Your task to perform on an android device: check android version Image 0: 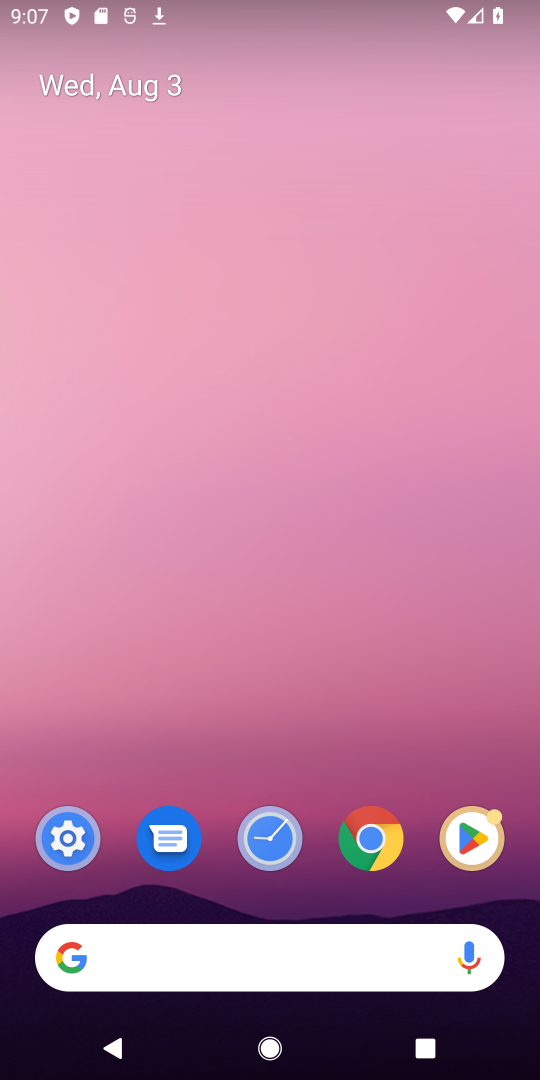
Step 0: drag from (463, 769) to (45, 17)
Your task to perform on an android device: check android version Image 1: 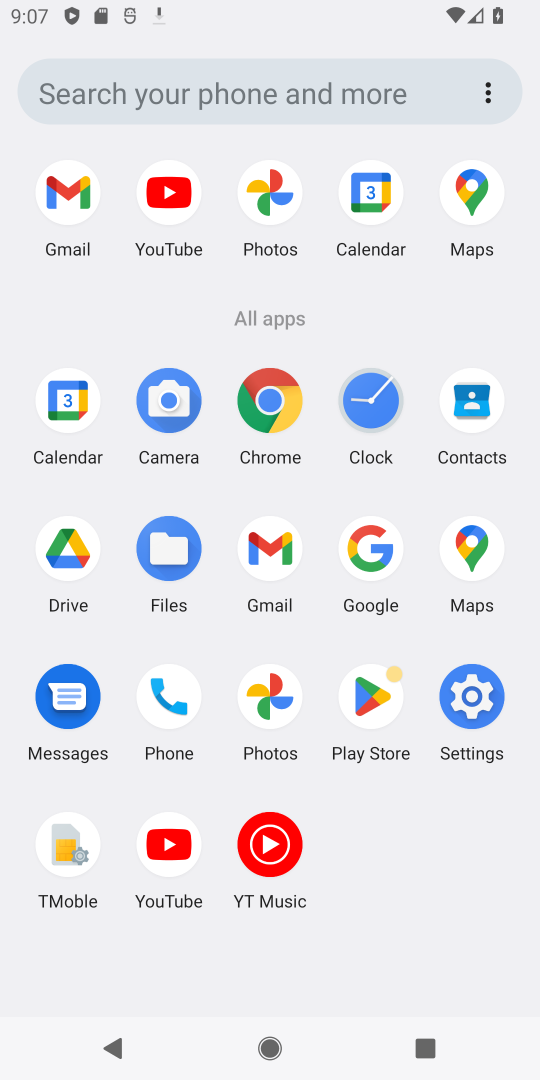
Step 1: click (465, 673)
Your task to perform on an android device: check android version Image 2: 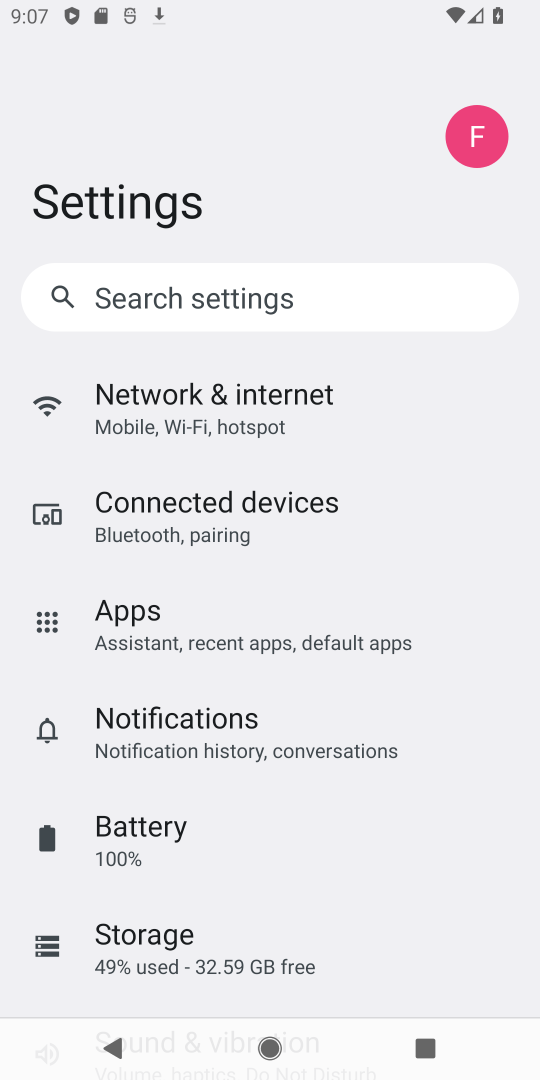
Step 2: drag from (481, 922) to (380, 205)
Your task to perform on an android device: check android version Image 3: 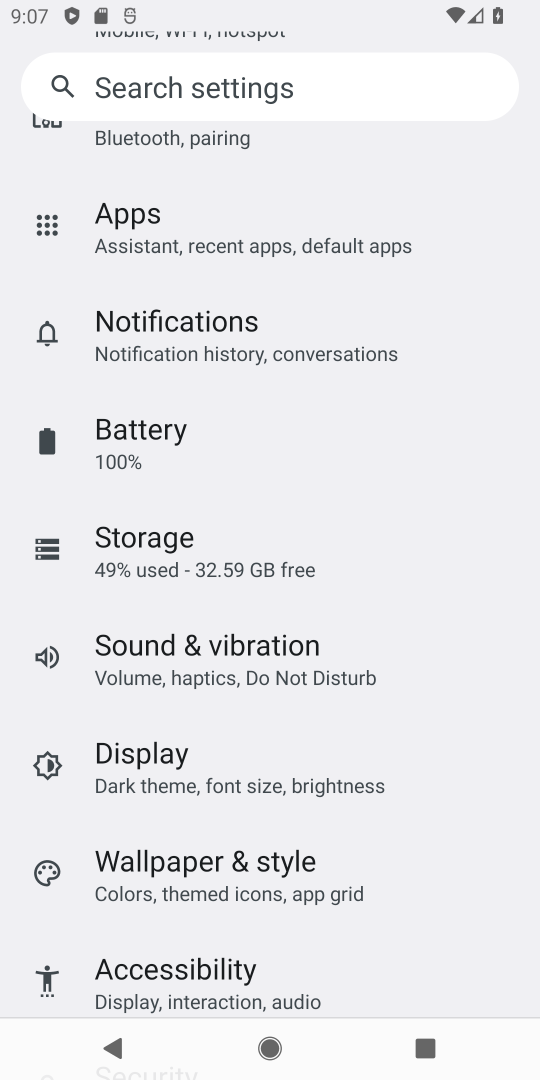
Step 3: drag from (279, 952) to (301, 187)
Your task to perform on an android device: check android version Image 4: 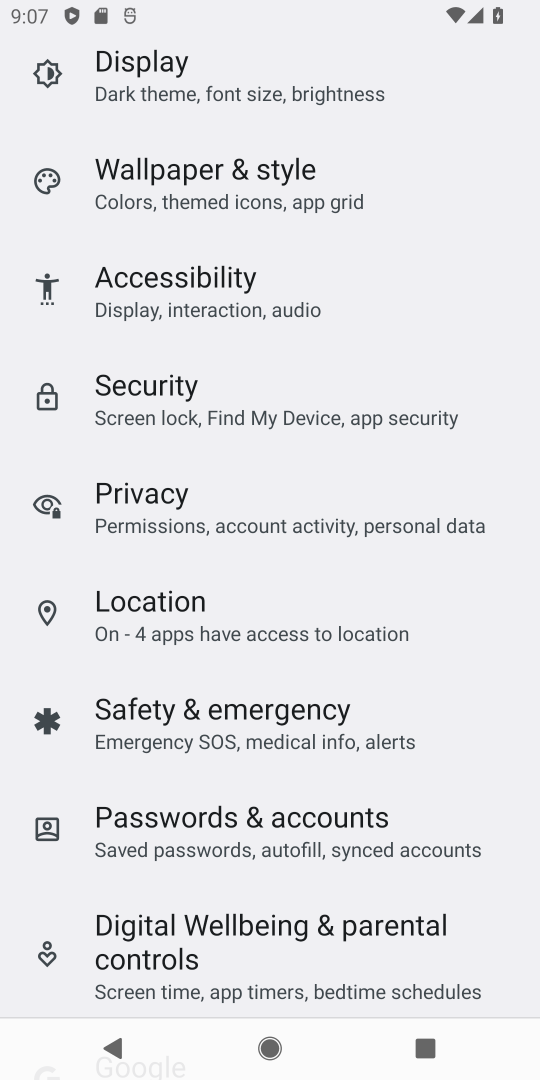
Step 4: drag from (380, 981) to (284, 47)
Your task to perform on an android device: check android version Image 5: 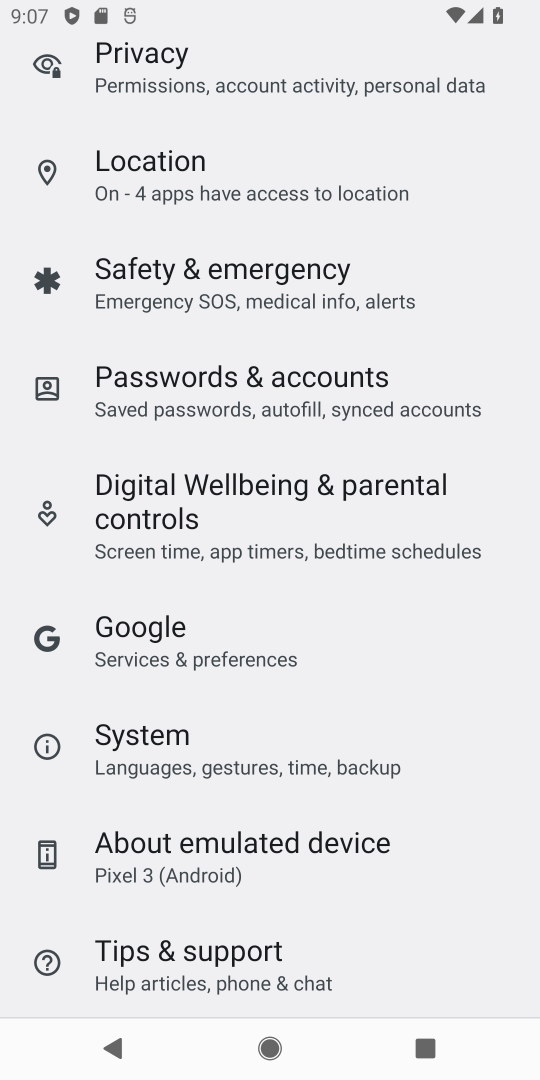
Step 5: click (333, 851)
Your task to perform on an android device: check android version Image 6: 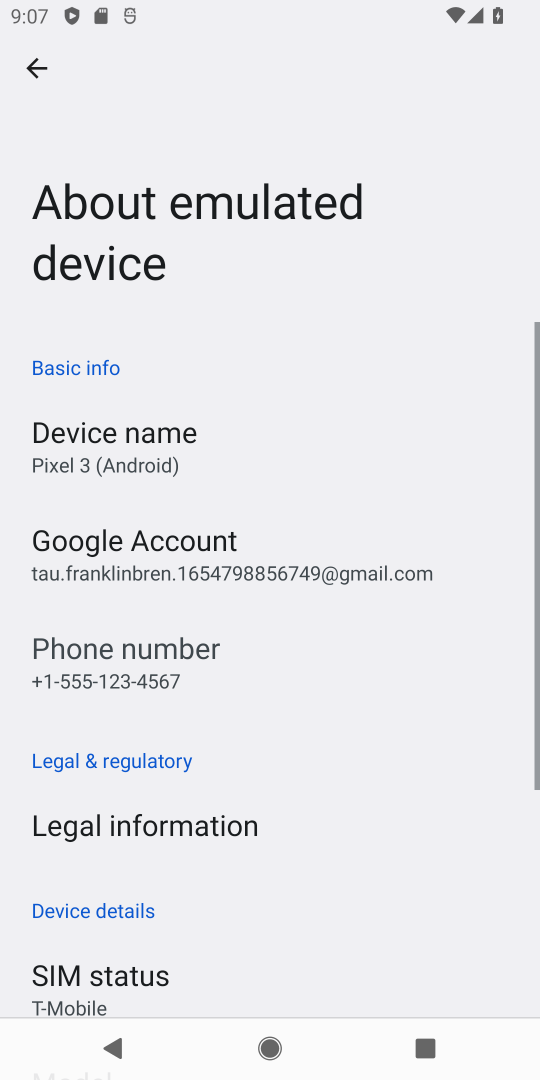
Step 6: drag from (317, 890) to (287, 188)
Your task to perform on an android device: check android version Image 7: 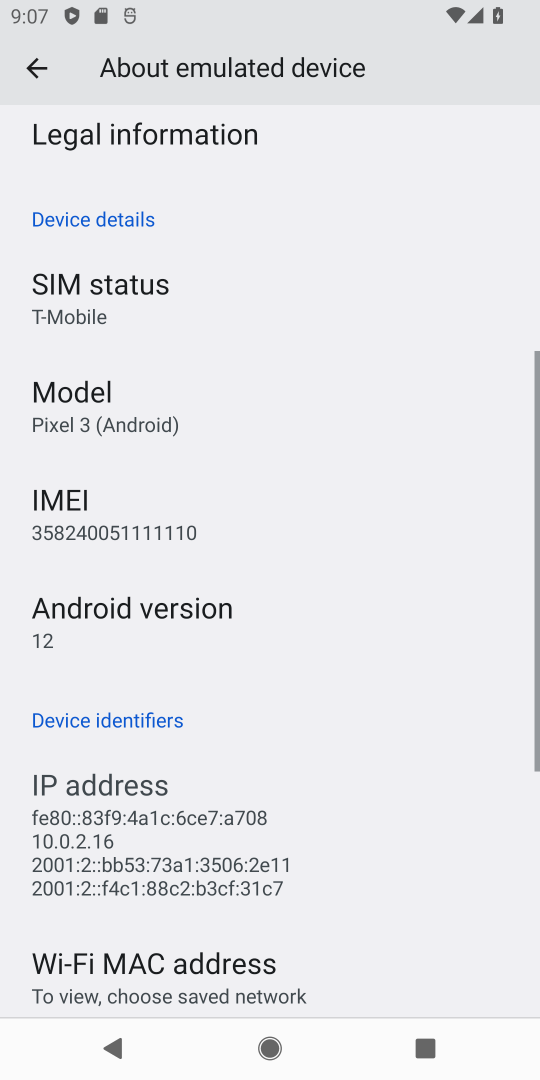
Step 7: click (256, 603)
Your task to perform on an android device: check android version Image 8: 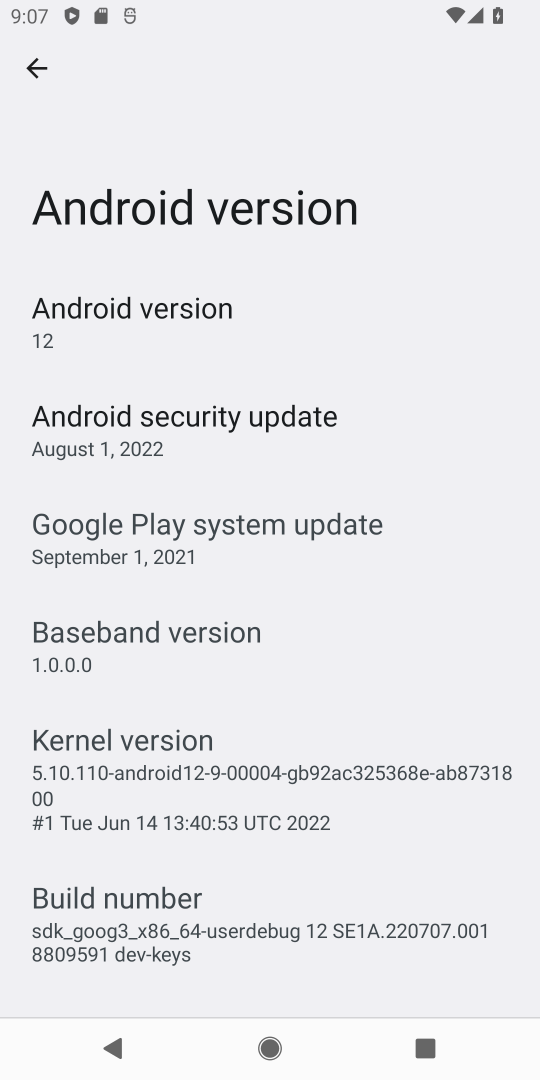
Step 8: task complete